Your task to perform on an android device: Toggle the flashlight Image 0: 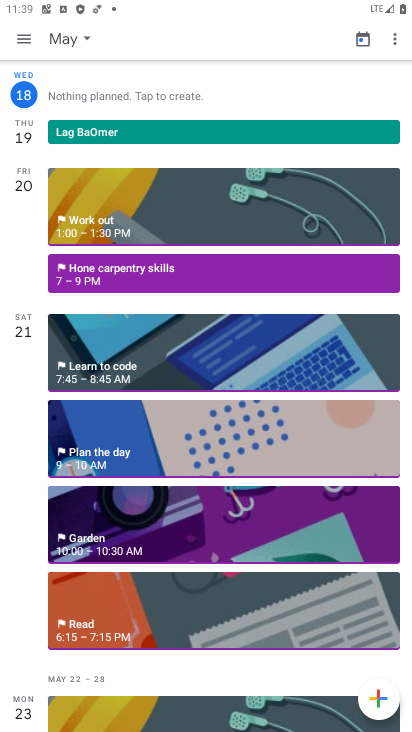
Step 0: press home button
Your task to perform on an android device: Toggle the flashlight Image 1: 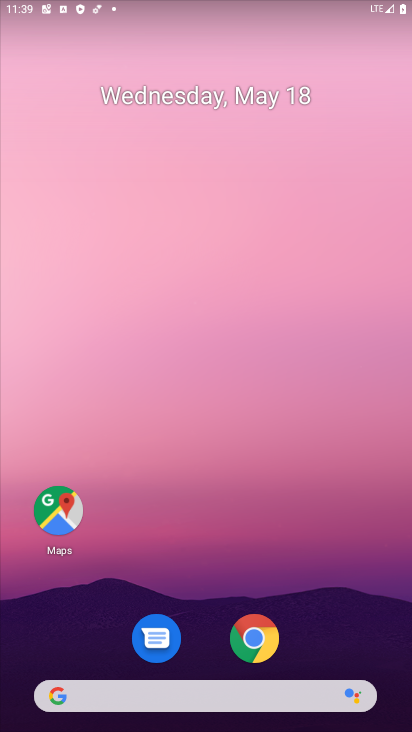
Step 1: drag from (360, 673) to (361, 97)
Your task to perform on an android device: Toggle the flashlight Image 2: 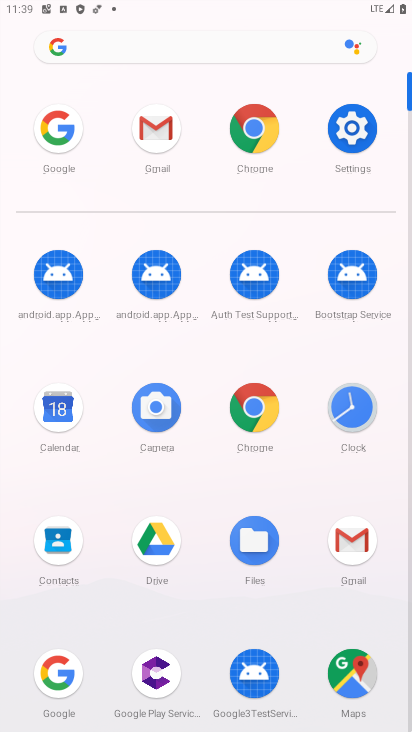
Step 2: click (368, 125)
Your task to perform on an android device: Toggle the flashlight Image 3: 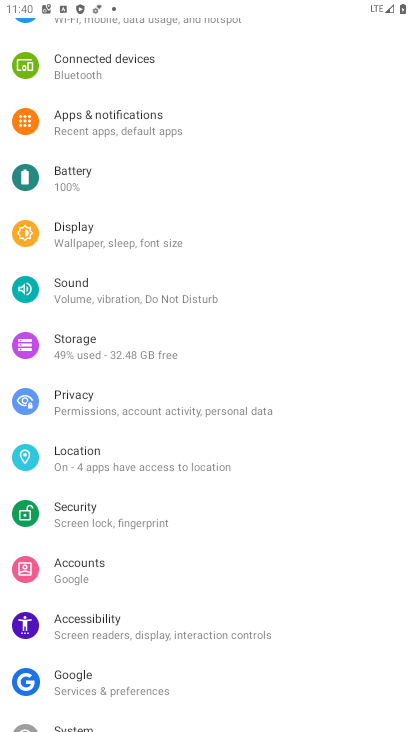
Step 3: task complete